Your task to perform on an android device: change notification settings in the gmail app Image 0: 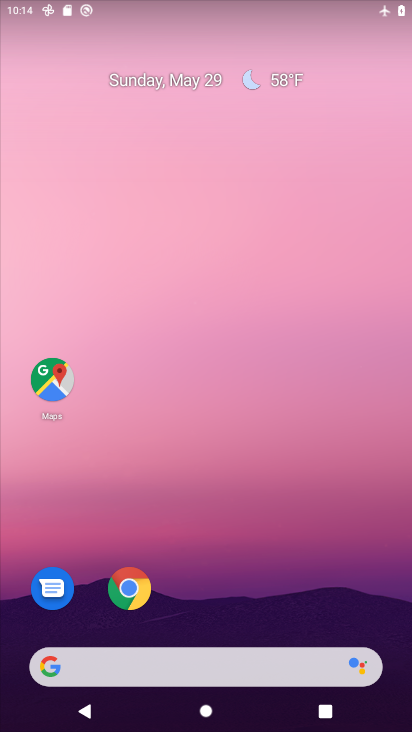
Step 0: click (236, 394)
Your task to perform on an android device: change notification settings in the gmail app Image 1: 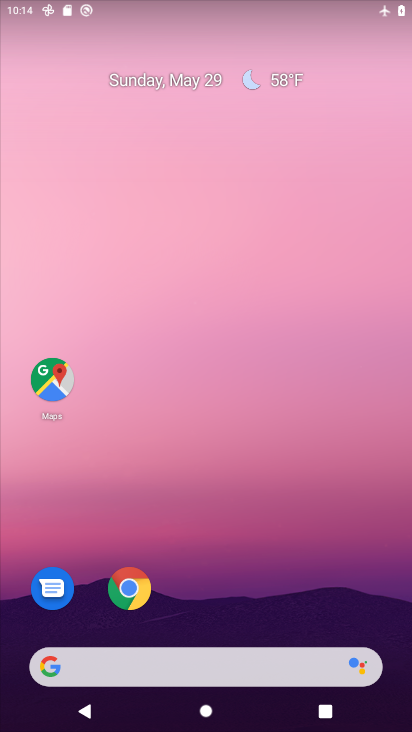
Step 1: drag from (286, 622) to (229, 172)
Your task to perform on an android device: change notification settings in the gmail app Image 2: 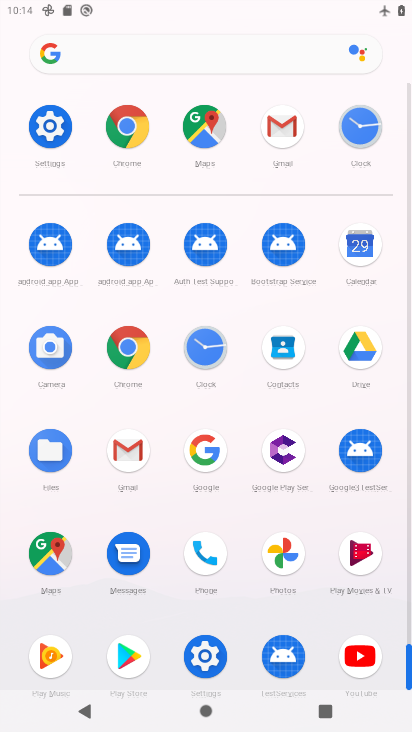
Step 2: click (283, 132)
Your task to perform on an android device: change notification settings in the gmail app Image 3: 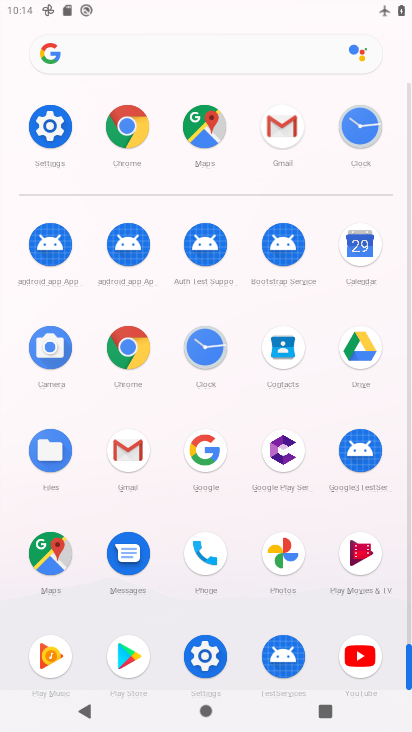
Step 3: click (283, 132)
Your task to perform on an android device: change notification settings in the gmail app Image 4: 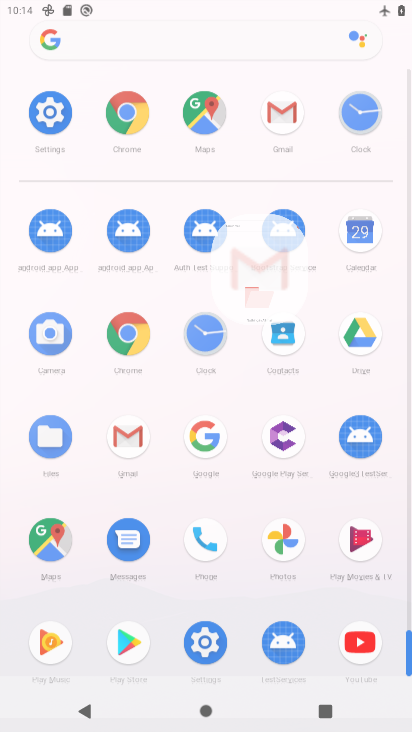
Step 4: click (283, 132)
Your task to perform on an android device: change notification settings in the gmail app Image 5: 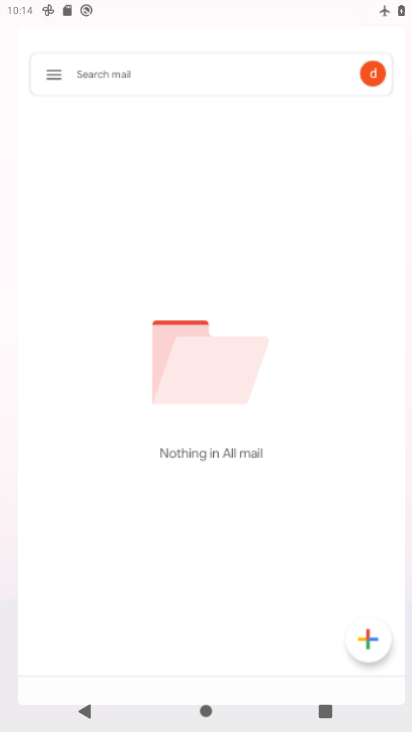
Step 5: click (283, 132)
Your task to perform on an android device: change notification settings in the gmail app Image 6: 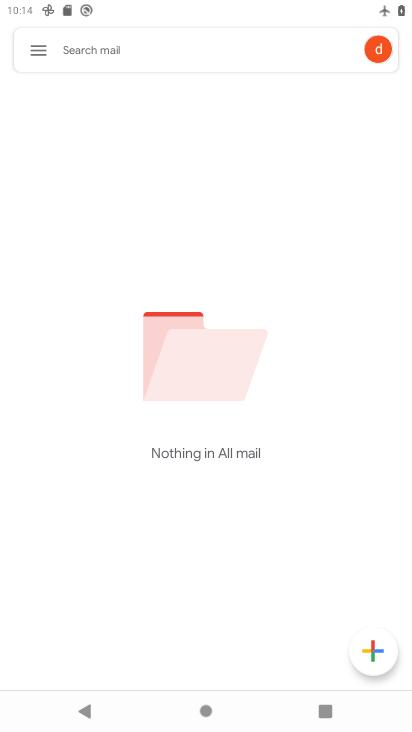
Step 6: click (44, 50)
Your task to perform on an android device: change notification settings in the gmail app Image 7: 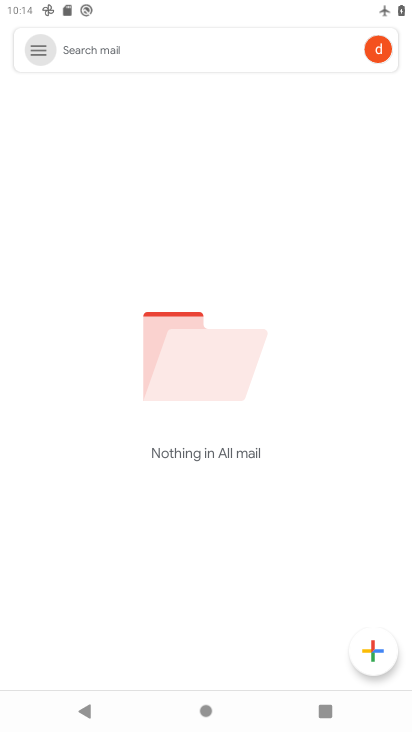
Step 7: click (44, 50)
Your task to perform on an android device: change notification settings in the gmail app Image 8: 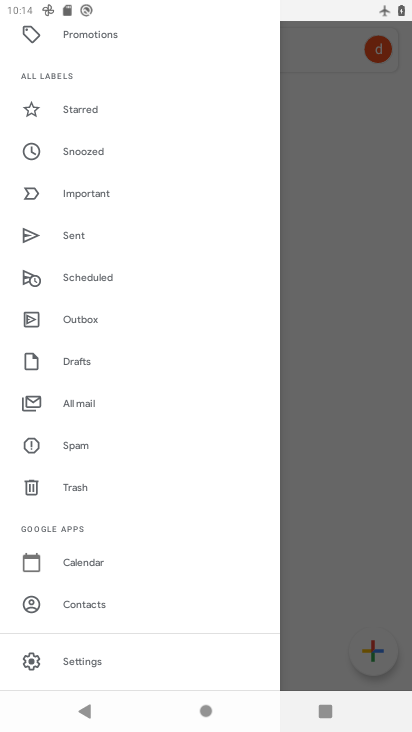
Step 8: drag from (94, 455) to (99, 201)
Your task to perform on an android device: change notification settings in the gmail app Image 9: 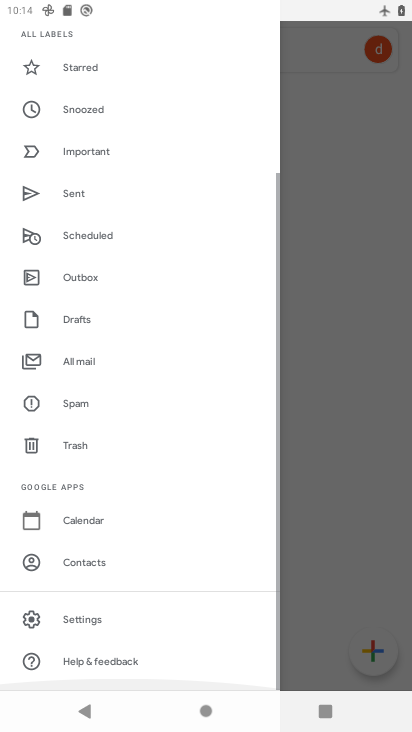
Step 9: drag from (116, 429) to (116, 155)
Your task to perform on an android device: change notification settings in the gmail app Image 10: 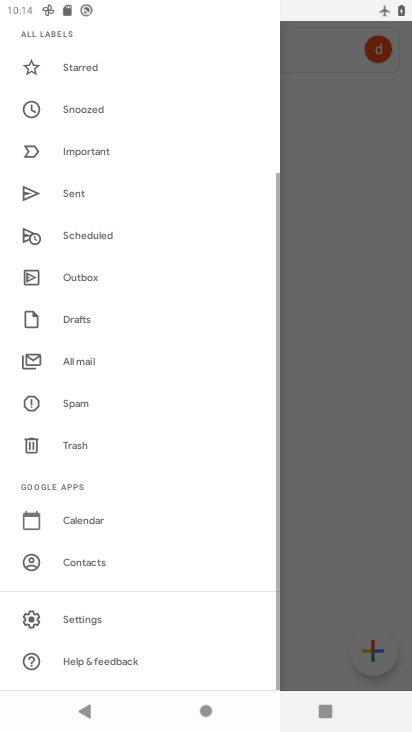
Step 10: click (89, 617)
Your task to perform on an android device: change notification settings in the gmail app Image 11: 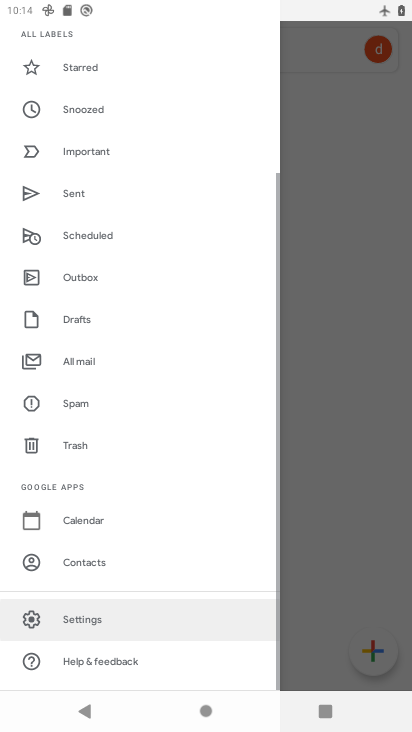
Step 11: click (96, 613)
Your task to perform on an android device: change notification settings in the gmail app Image 12: 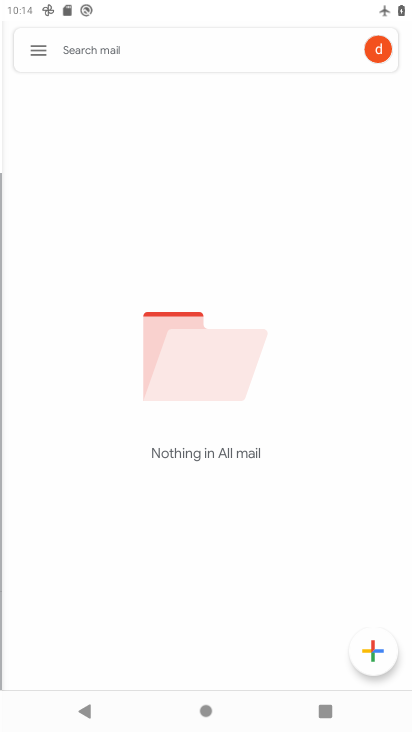
Step 12: click (97, 612)
Your task to perform on an android device: change notification settings in the gmail app Image 13: 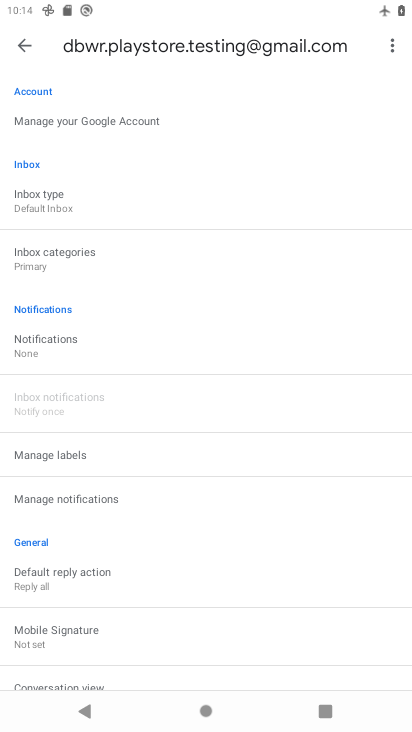
Step 13: click (31, 334)
Your task to perform on an android device: change notification settings in the gmail app Image 14: 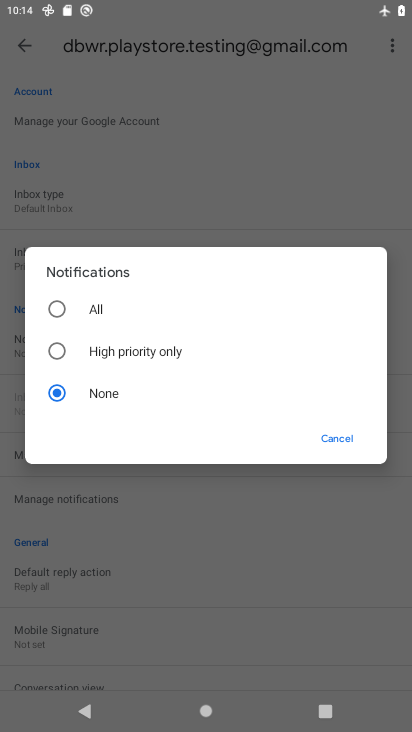
Step 14: click (54, 336)
Your task to perform on an android device: change notification settings in the gmail app Image 15: 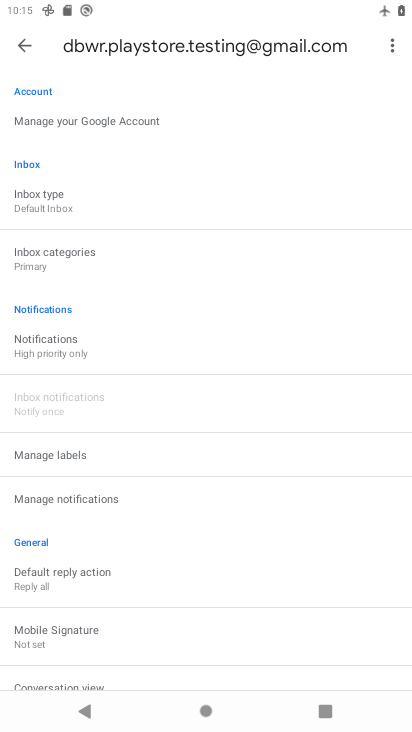
Step 15: task complete